Your task to perform on an android device: change the clock display to show seconds Image 0: 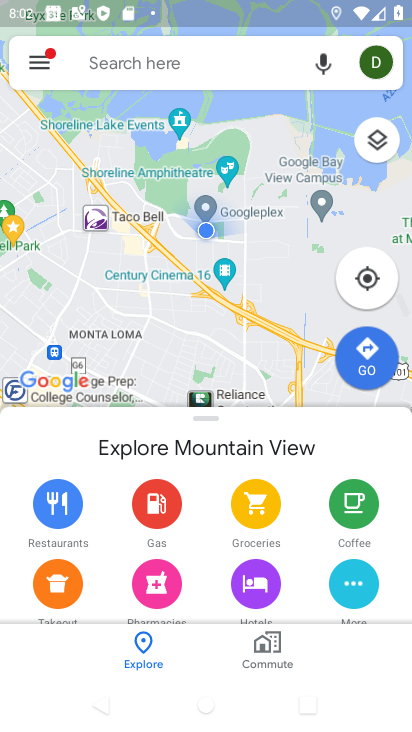
Step 0: press home button
Your task to perform on an android device: change the clock display to show seconds Image 1: 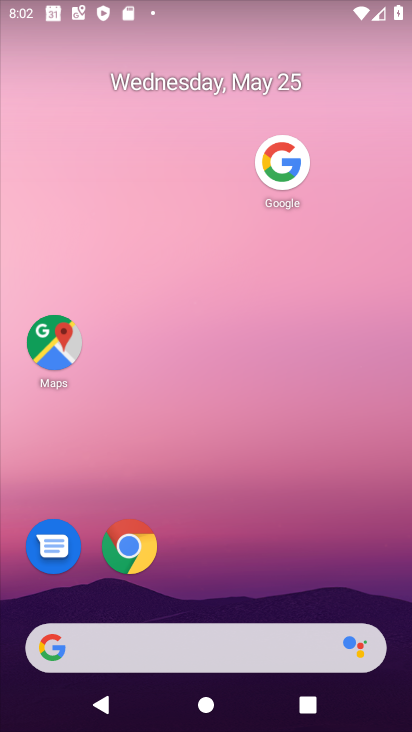
Step 1: drag from (223, 620) to (330, 219)
Your task to perform on an android device: change the clock display to show seconds Image 2: 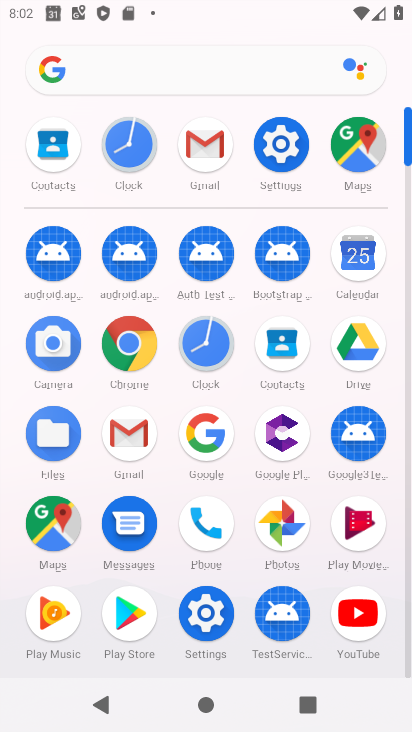
Step 2: click (208, 344)
Your task to perform on an android device: change the clock display to show seconds Image 3: 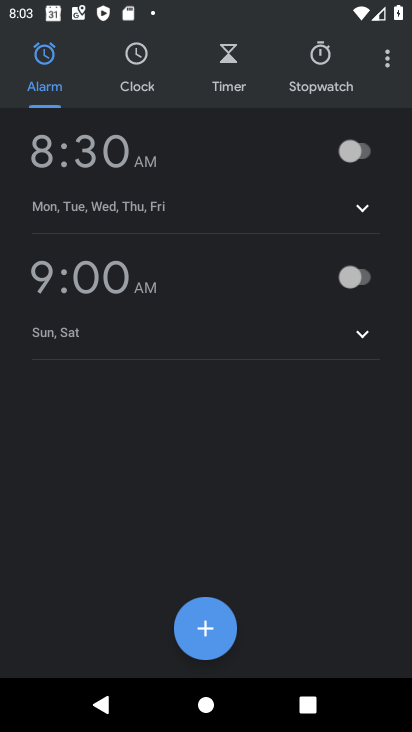
Step 3: click (390, 65)
Your task to perform on an android device: change the clock display to show seconds Image 4: 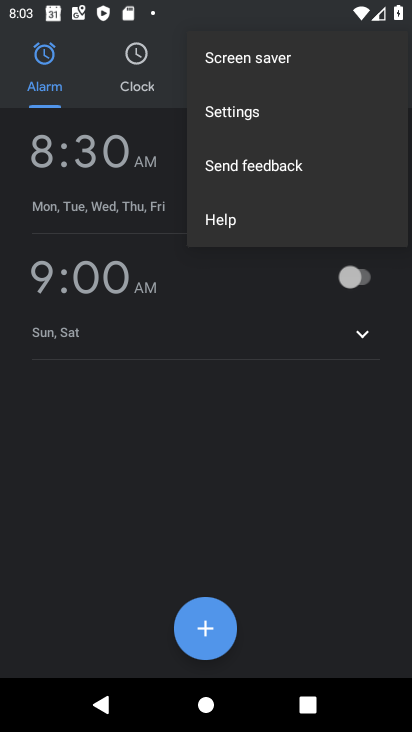
Step 4: click (253, 108)
Your task to perform on an android device: change the clock display to show seconds Image 5: 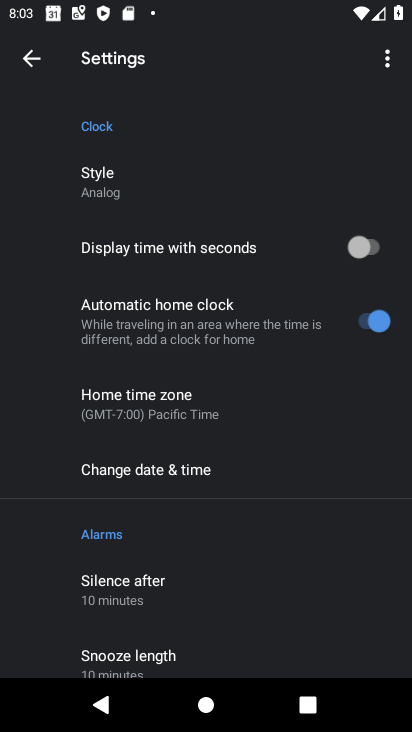
Step 5: click (374, 250)
Your task to perform on an android device: change the clock display to show seconds Image 6: 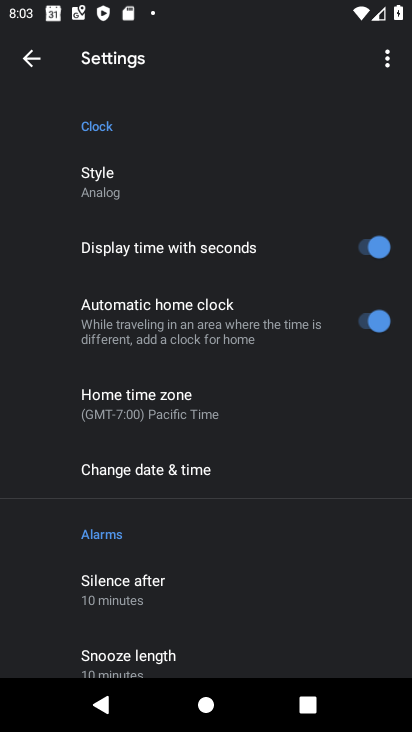
Step 6: task complete